Your task to perform on an android device: turn off data saver in the chrome app Image 0: 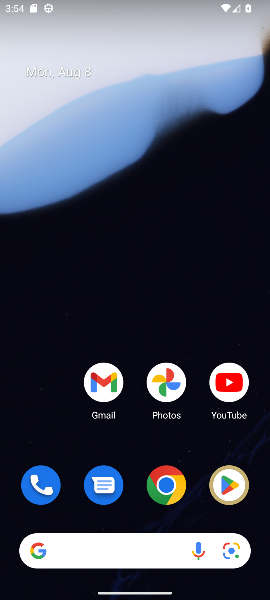
Step 0: click (109, 277)
Your task to perform on an android device: turn off data saver in the chrome app Image 1: 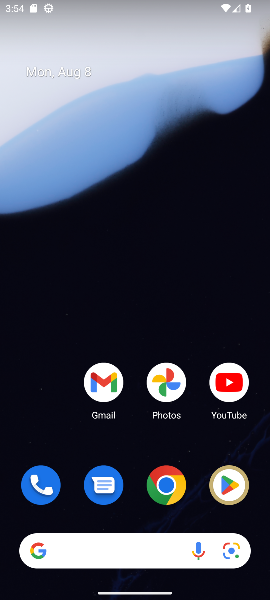
Step 1: drag from (157, 543) to (113, 281)
Your task to perform on an android device: turn off data saver in the chrome app Image 2: 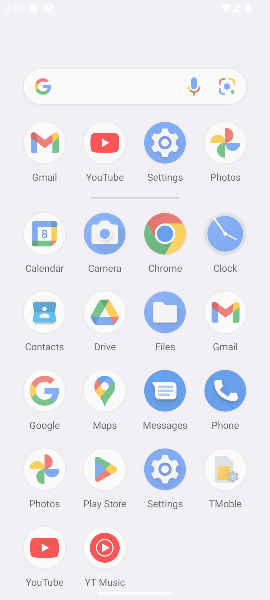
Step 2: drag from (141, 501) to (117, 255)
Your task to perform on an android device: turn off data saver in the chrome app Image 3: 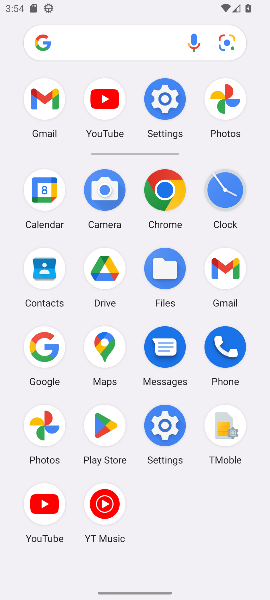
Step 3: click (167, 168)
Your task to perform on an android device: turn off data saver in the chrome app Image 4: 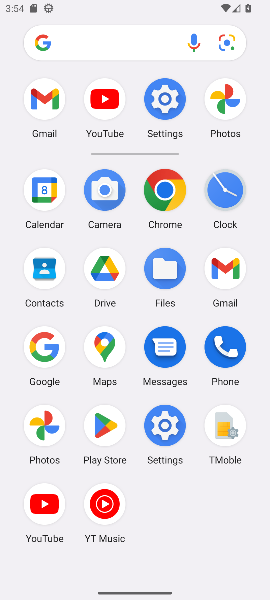
Step 4: click (165, 191)
Your task to perform on an android device: turn off data saver in the chrome app Image 5: 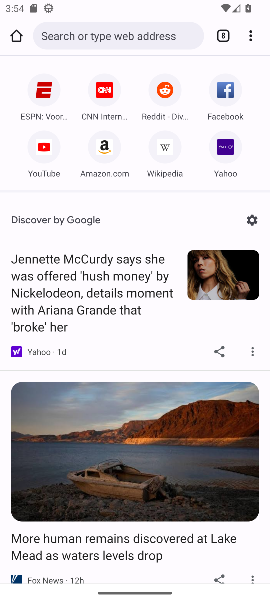
Step 5: drag from (241, 36) to (136, 326)
Your task to perform on an android device: turn off data saver in the chrome app Image 6: 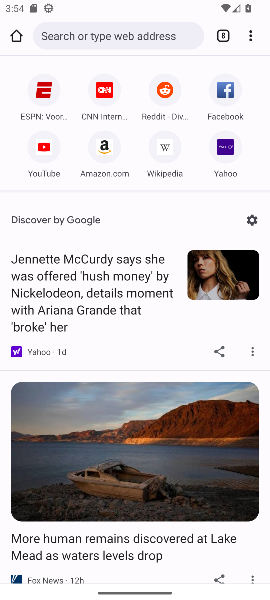
Step 6: click (138, 327)
Your task to perform on an android device: turn off data saver in the chrome app Image 7: 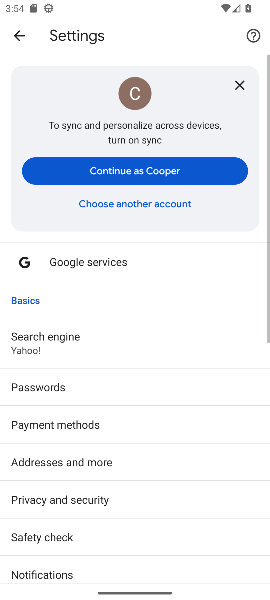
Step 7: task complete